Your task to perform on an android device: turn on priority inbox in the gmail app Image 0: 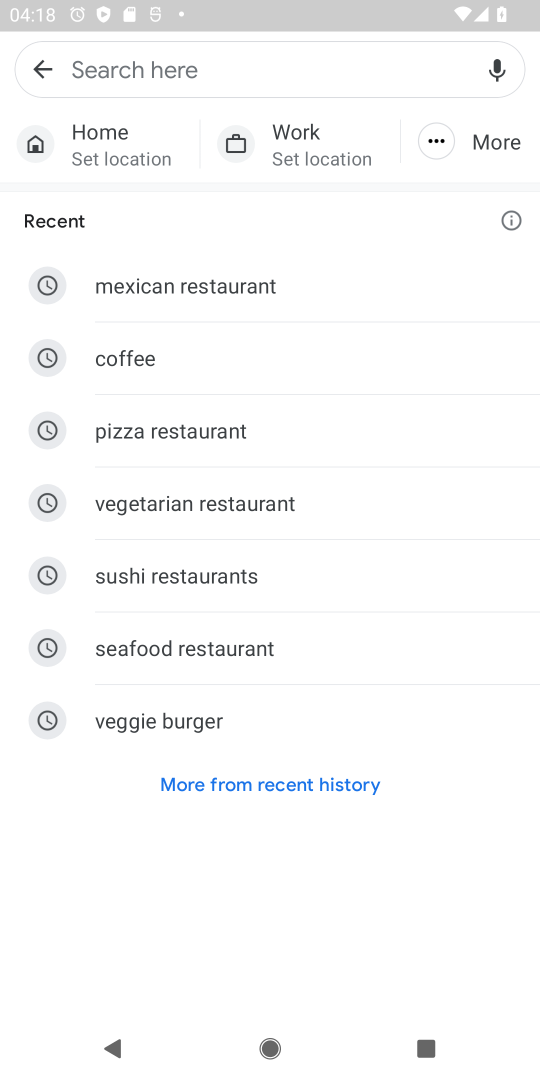
Step 0: press home button
Your task to perform on an android device: turn on priority inbox in the gmail app Image 1: 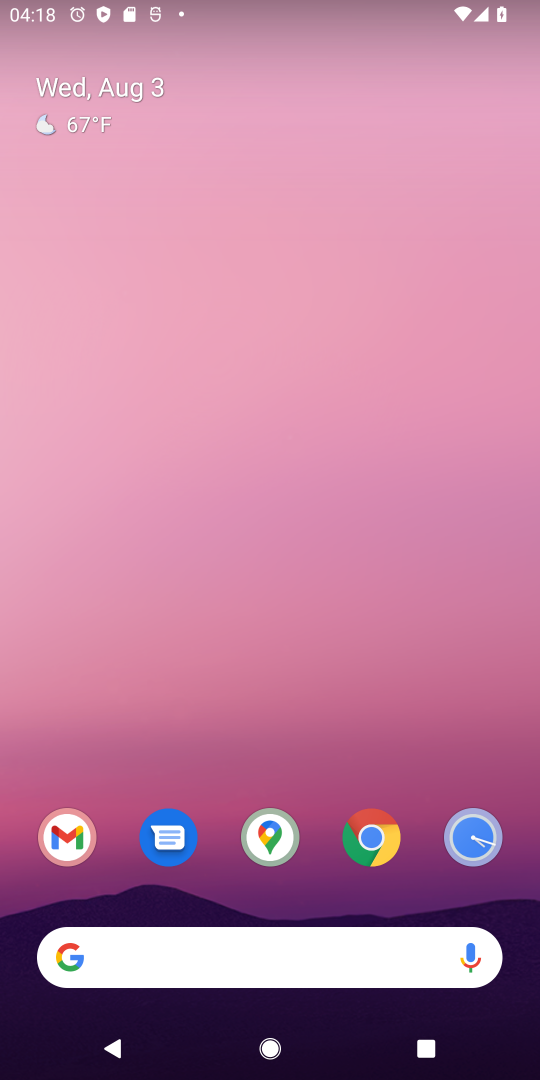
Step 1: drag from (435, 872) to (398, 246)
Your task to perform on an android device: turn on priority inbox in the gmail app Image 2: 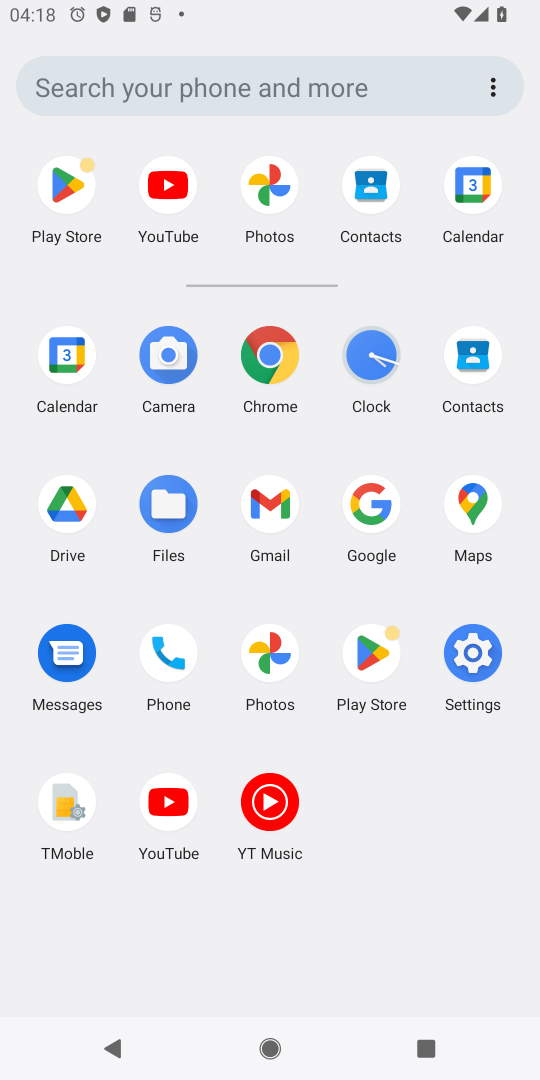
Step 2: click (266, 507)
Your task to perform on an android device: turn on priority inbox in the gmail app Image 3: 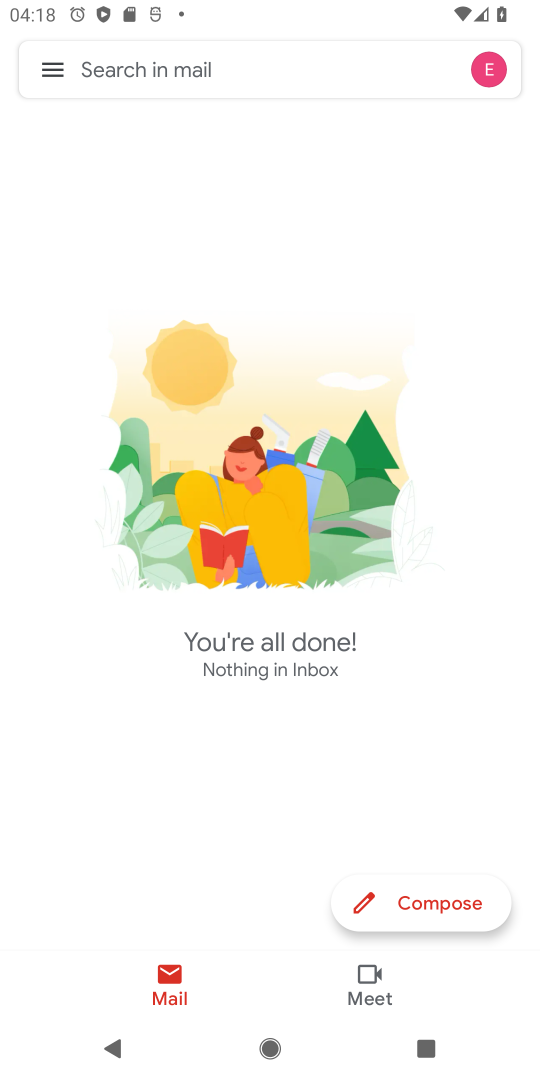
Step 3: click (53, 73)
Your task to perform on an android device: turn on priority inbox in the gmail app Image 4: 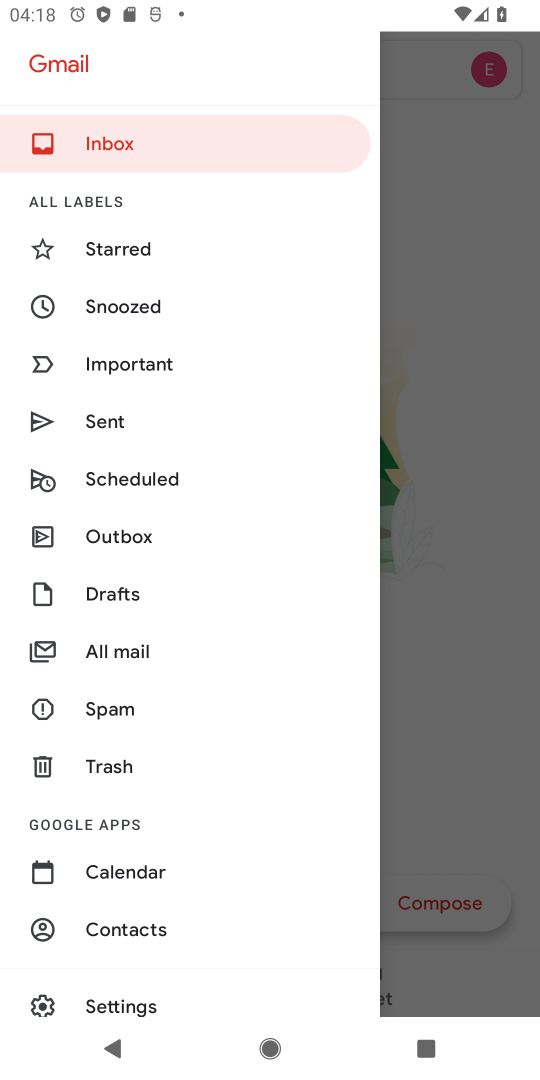
Step 4: drag from (169, 953) to (189, 496)
Your task to perform on an android device: turn on priority inbox in the gmail app Image 5: 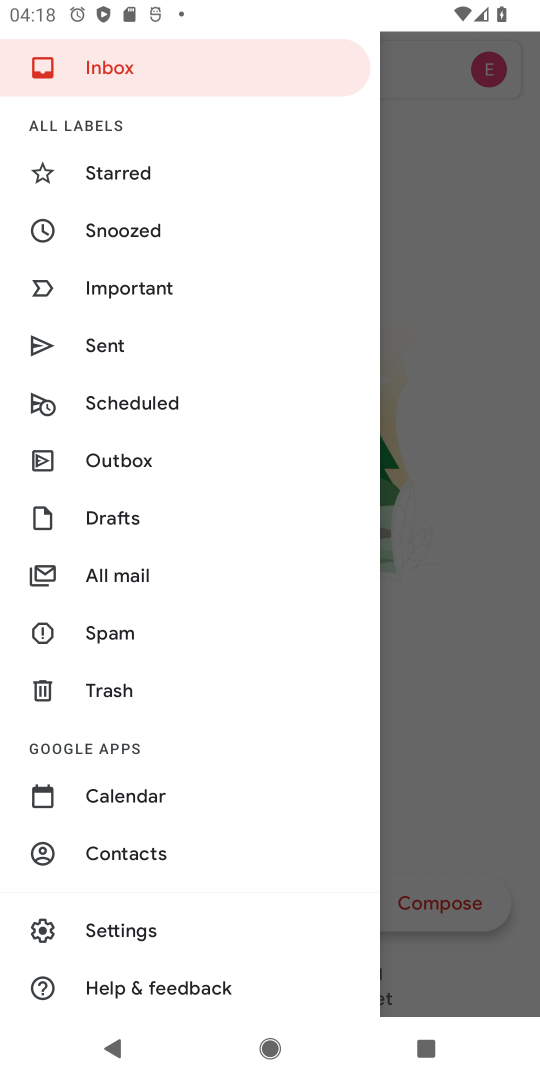
Step 5: click (100, 933)
Your task to perform on an android device: turn on priority inbox in the gmail app Image 6: 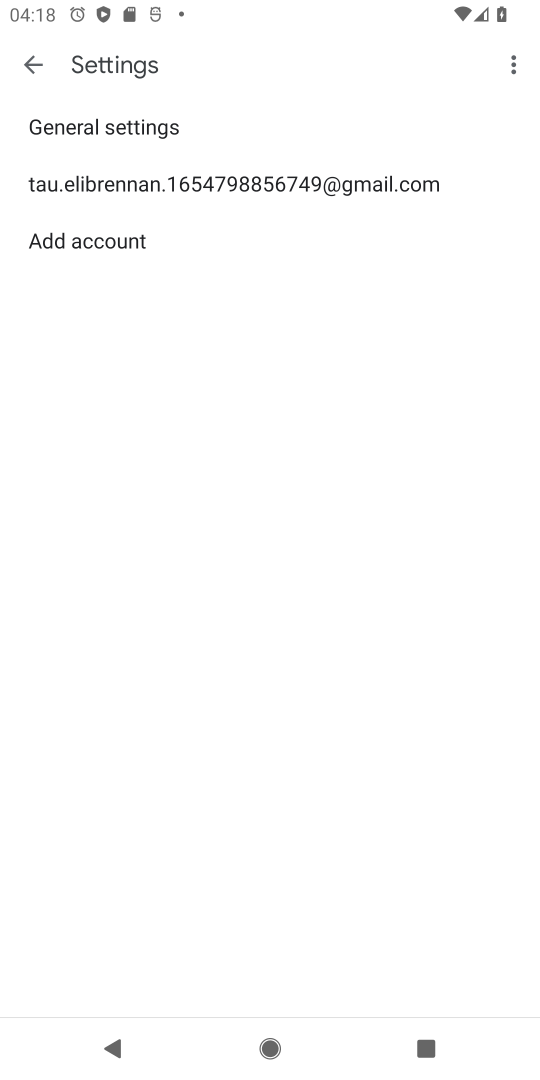
Step 6: click (217, 185)
Your task to perform on an android device: turn on priority inbox in the gmail app Image 7: 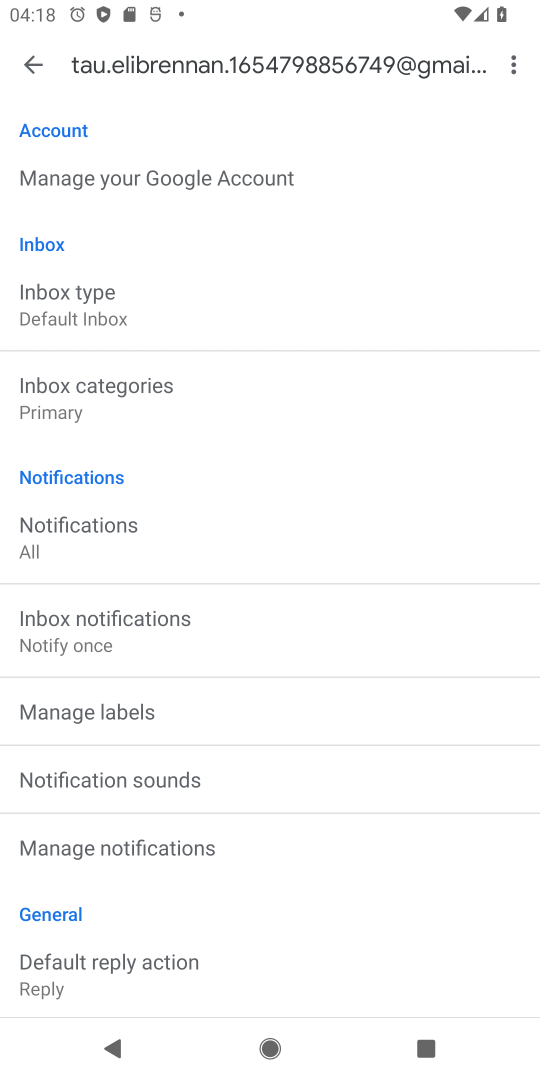
Step 7: click (58, 313)
Your task to perform on an android device: turn on priority inbox in the gmail app Image 8: 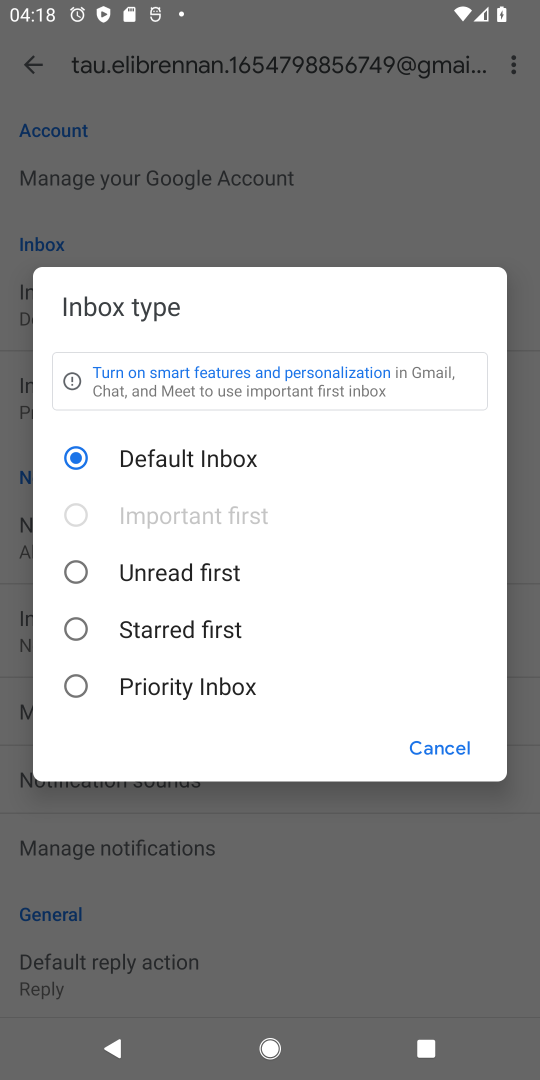
Step 8: click (77, 684)
Your task to perform on an android device: turn on priority inbox in the gmail app Image 9: 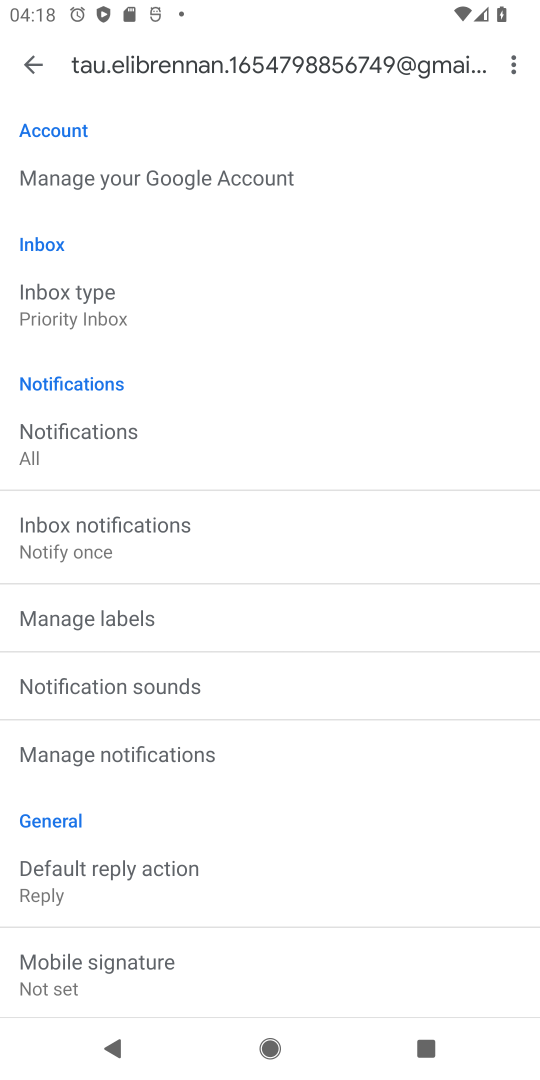
Step 9: task complete